Your task to perform on an android device: Open battery settings Image 0: 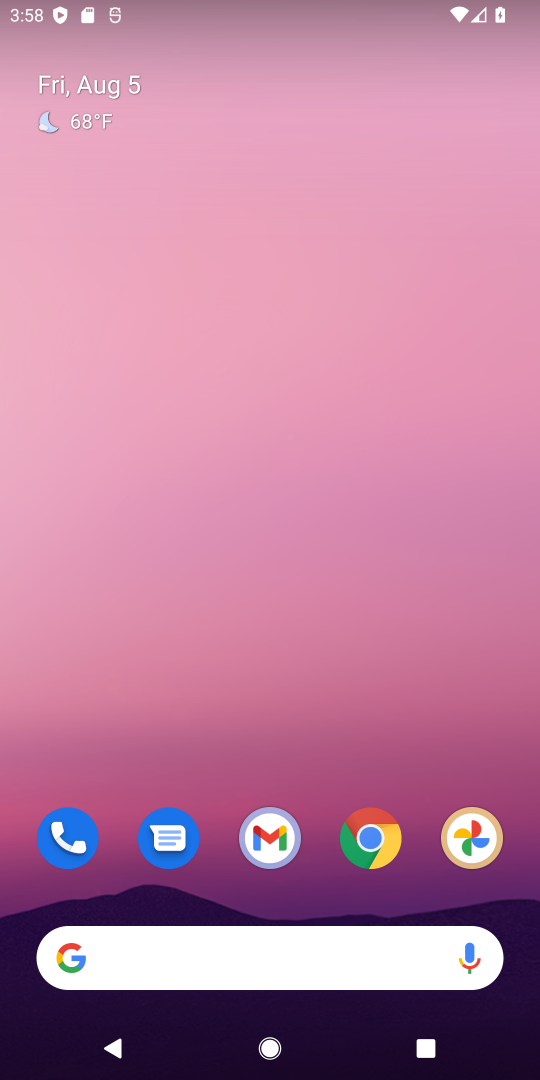
Step 0: drag from (280, 932) to (380, 225)
Your task to perform on an android device: Open battery settings Image 1: 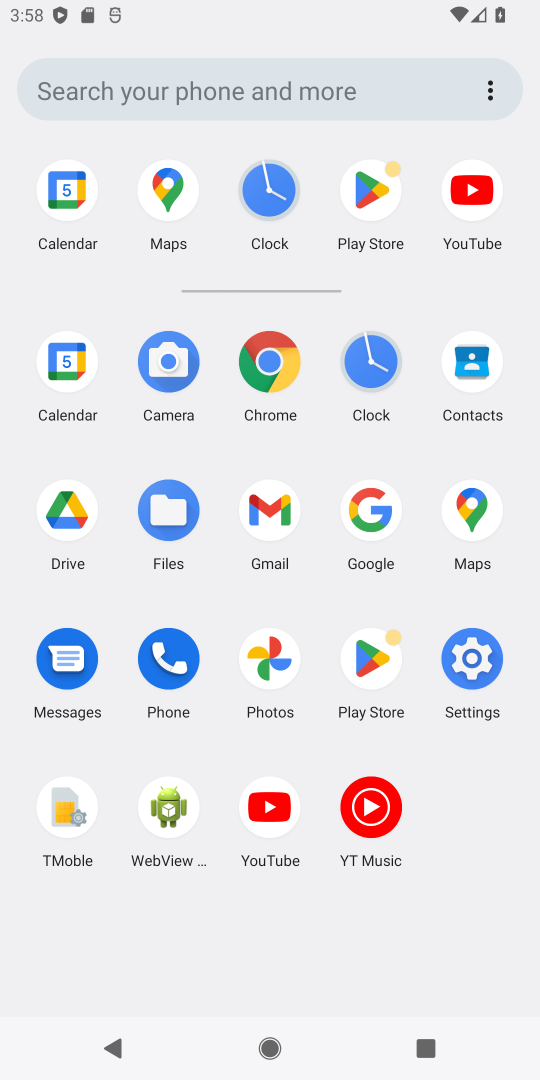
Step 1: click (492, 651)
Your task to perform on an android device: Open battery settings Image 2: 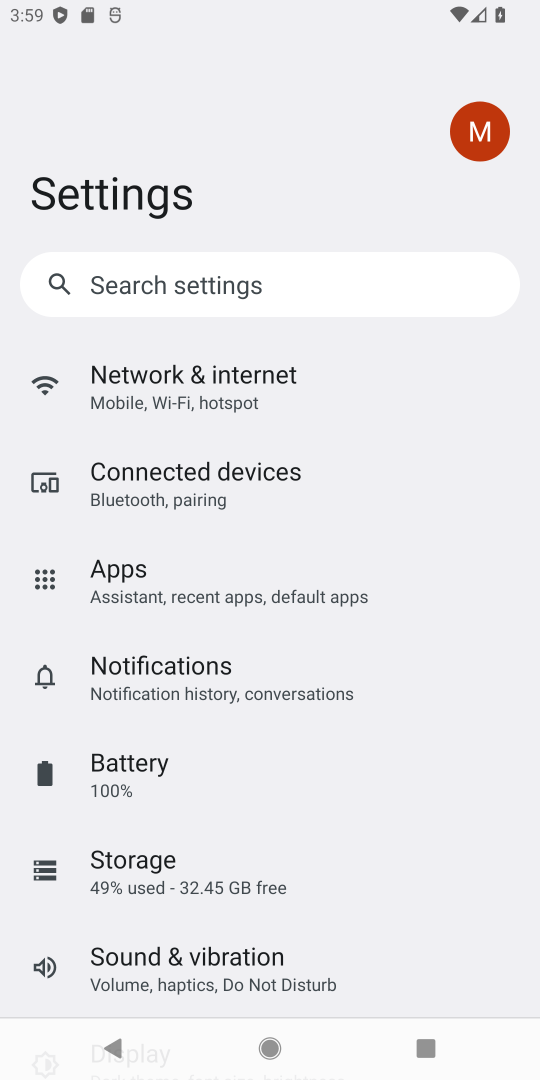
Step 2: click (152, 785)
Your task to perform on an android device: Open battery settings Image 3: 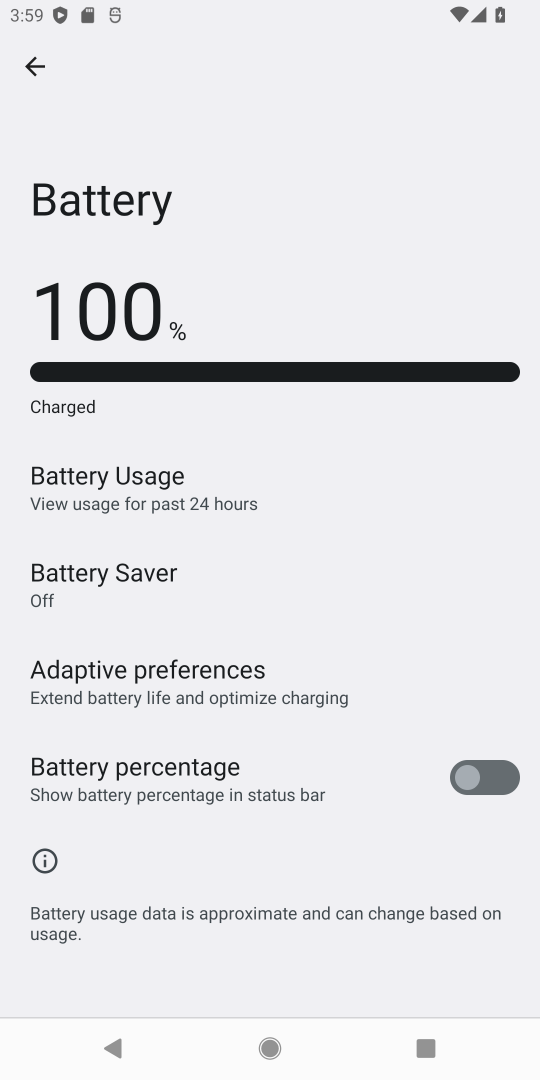
Step 3: task complete